Your task to perform on an android device: Open the Play Movies app and select the watchlist tab. Image 0: 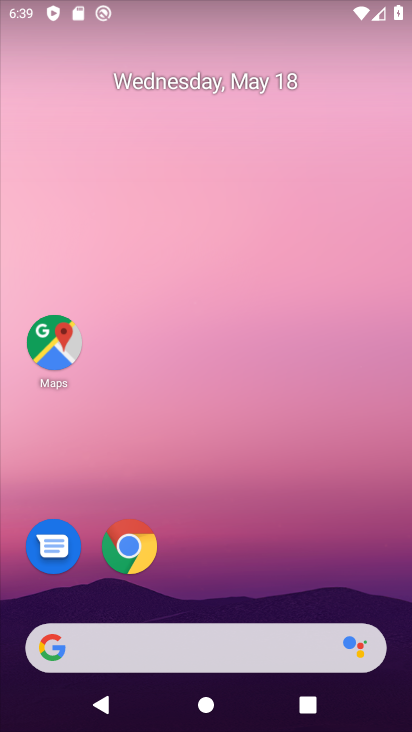
Step 0: drag from (398, 611) to (317, 63)
Your task to perform on an android device: Open the Play Movies app and select the watchlist tab. Image 1: 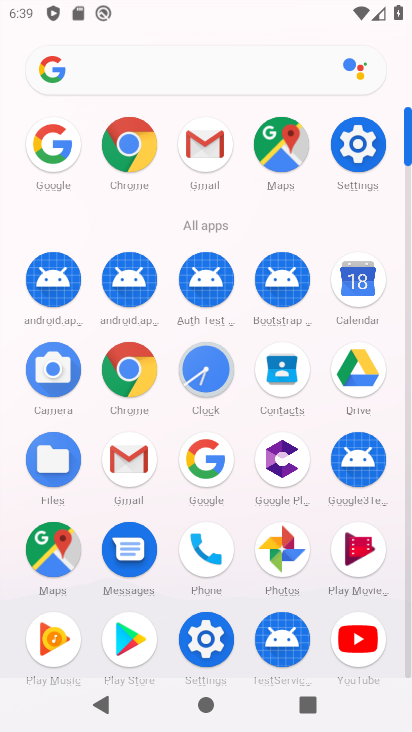
Step 1: click (358, 561)
Your task to perform on an android device: Open the Play Movies app and select the watchlist tab. Image 2: 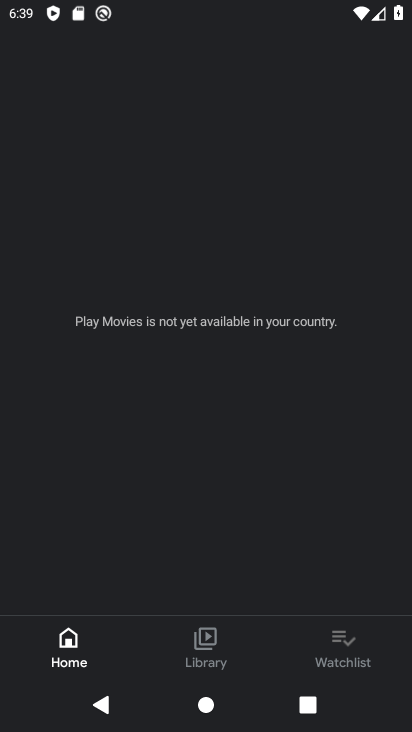
Step 2: click (341, 645)
Your task to perform on an android device: Open the Play Movies app and select the watchlist tab. Image 3: 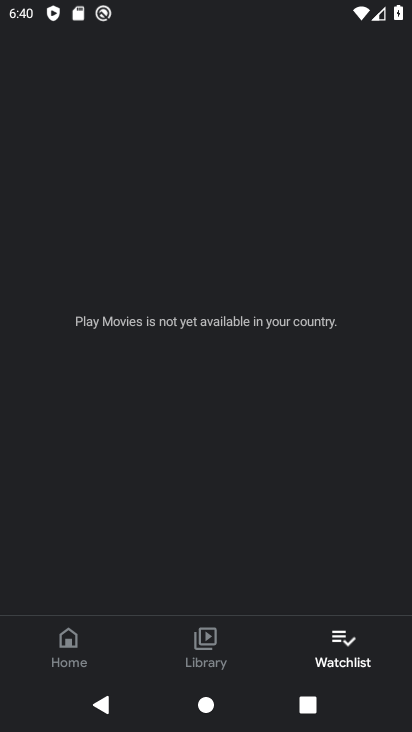
Step 3: task complete